Your task to perform on an android device: snooze an email in the gmail app Image 0: 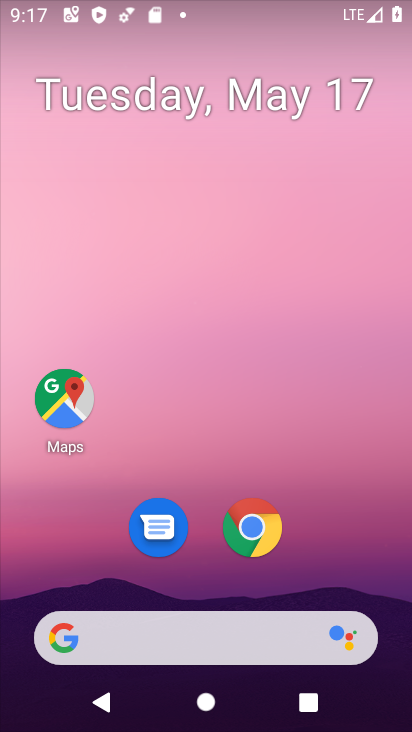
Step 0: press home button
Your task to perform on an android device: snooze an email in the gmail app Image 1: 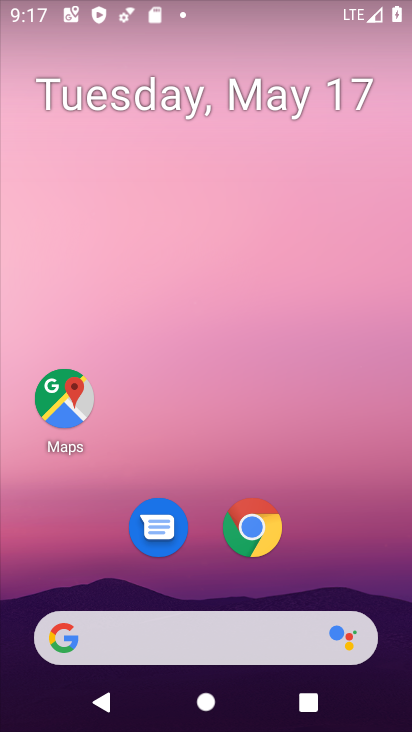
Step 1: drag from (196, 631) to (337, 160)
Your task to perform on an android device: snooze an email in the gmail app Image 2: 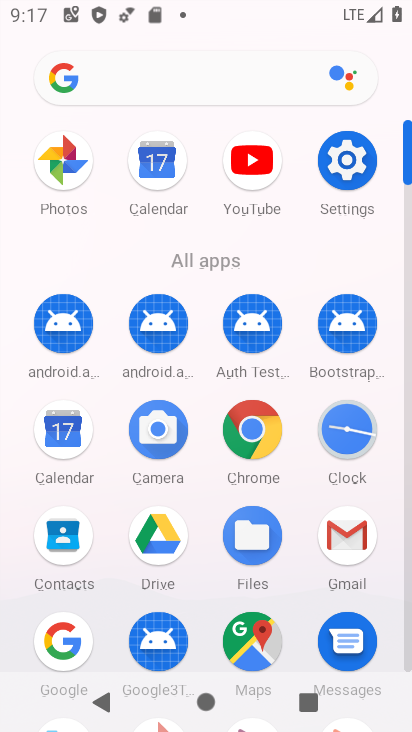
Step 2: click (352, 544)
Your task to perform on an android device: snooze an email in the gmail app Image 3: 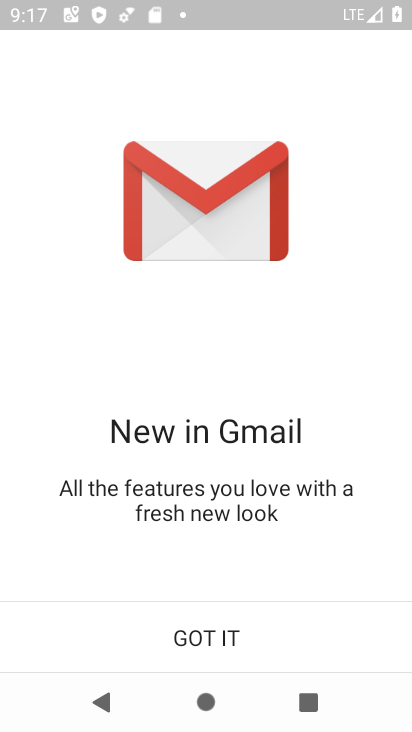
Step 3: click (241, 646)
Your task to perform on an android device: snooze an email in the gmail app Image 4: 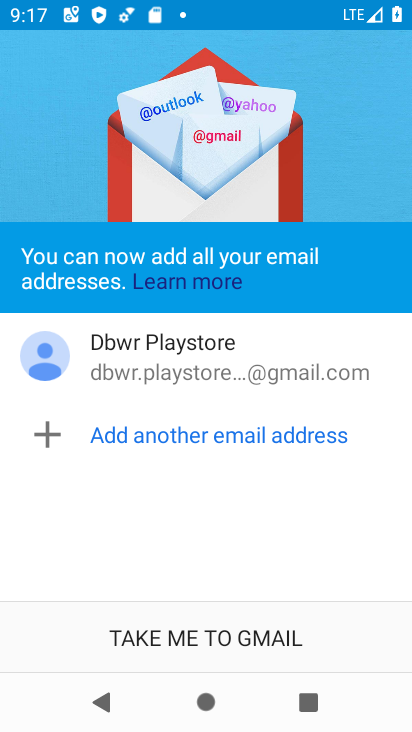
Step 4: click (241, 646)
Your task to perform on an android device: snooze an email in the gmail app Image 5: 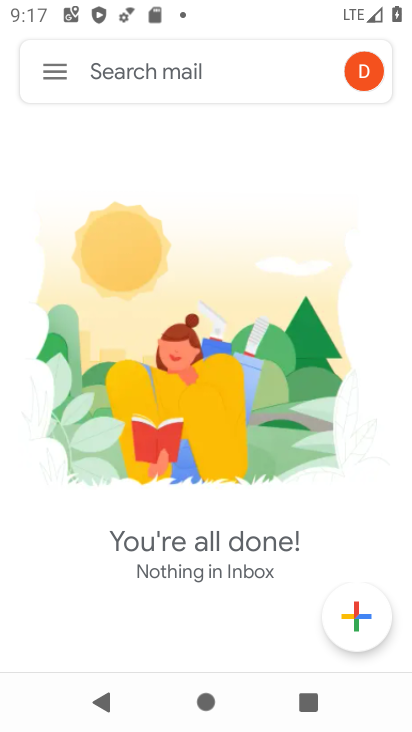
Step 5: task complete